Your task to perform on an android device: Open Chrome and go to the settings page Image 0: 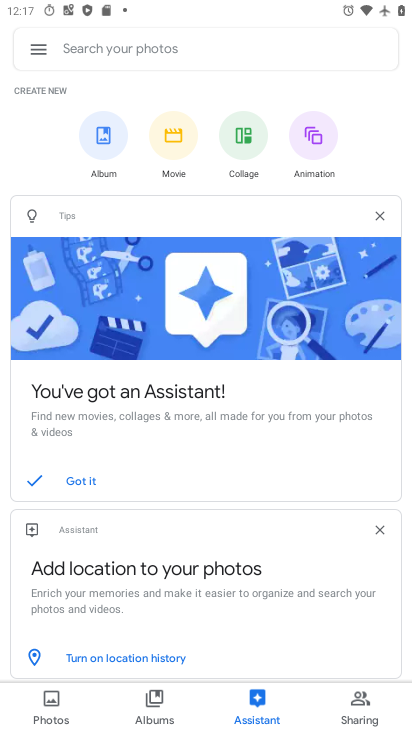
Step 0: press home button
Your task to perform on an android device: Open Chrome and go to the settings page Image 1: 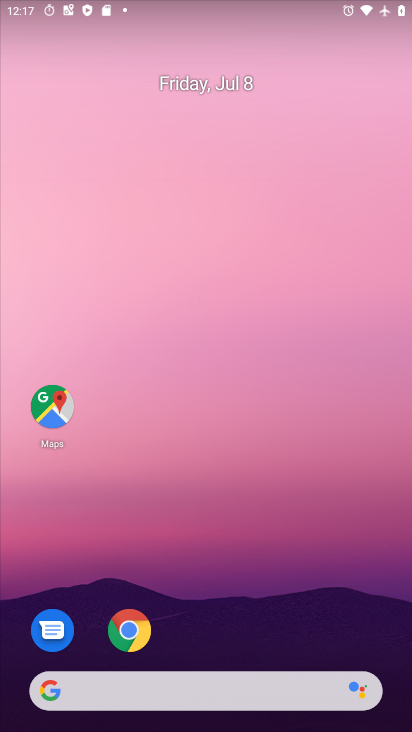
Step 1: click (142, 637)
Your task to perform on an android device: Open Chrome and go to the settings page Image 2: 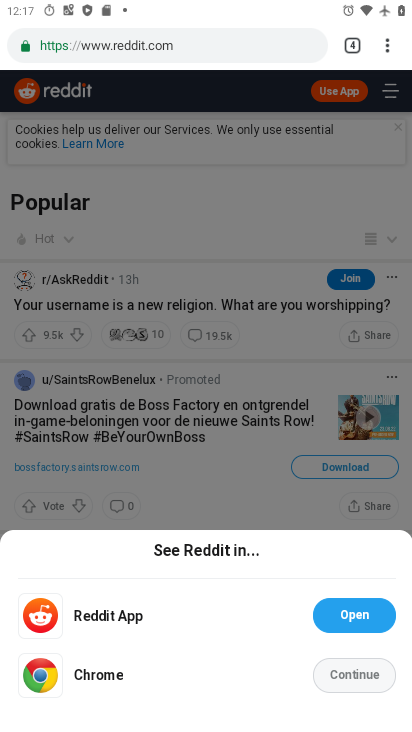
Step 2: click (389, 52)
Your task to perform on an android device: Open Chrome and go to the settings page Image 3: 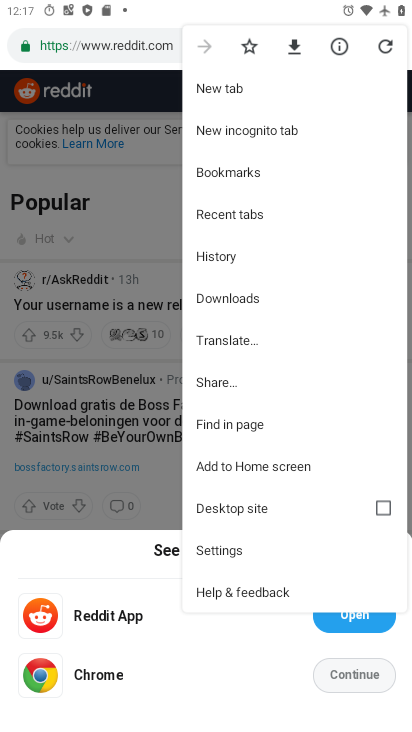
Step 3: click (226, 544)
Your task to perform on an android device: Open Chrome and go to the settings page Image 4: 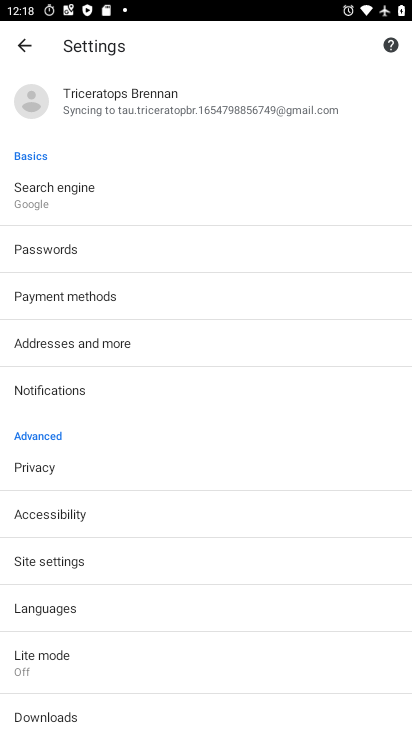
Step 4: task complete